Your task to perform on an android device: Show me productivity apps on the Play Store Image 0: 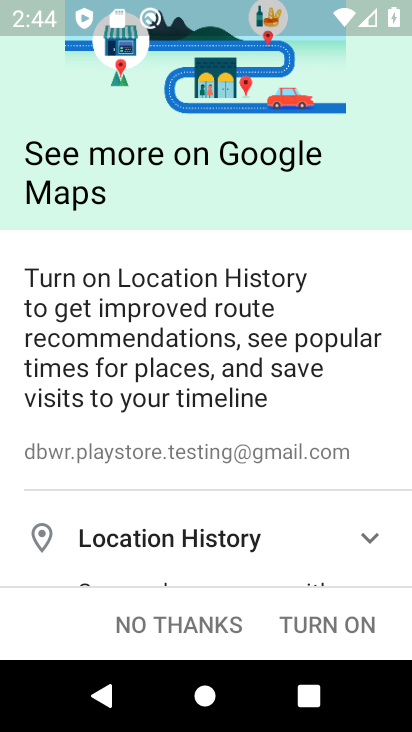
Step 0: press back button
Your task to perform on an android device: Show me productivity apps on the Play Store Image 1: 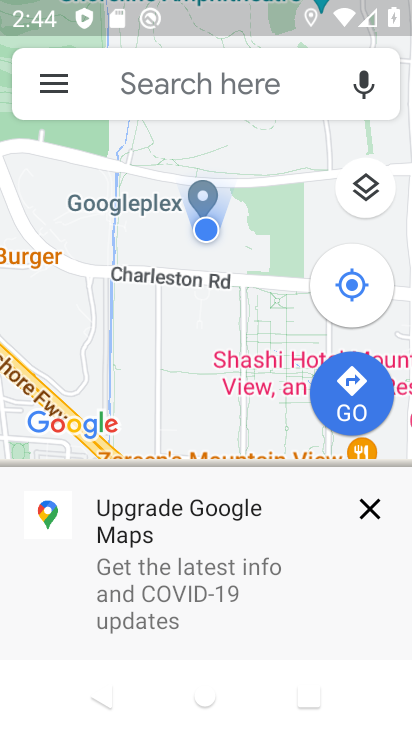
Step 1: press back button
Your task to perform on an android device: Show me productivity apps on the Play Store Image 2: 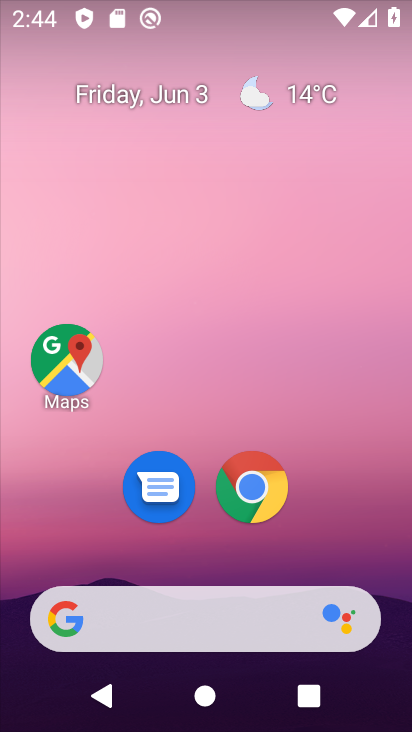
Step 2: drag from (201, 571) to (232, 12)
Your task to perform on an android device: Show me productivity apps on the Play Store Image 3: 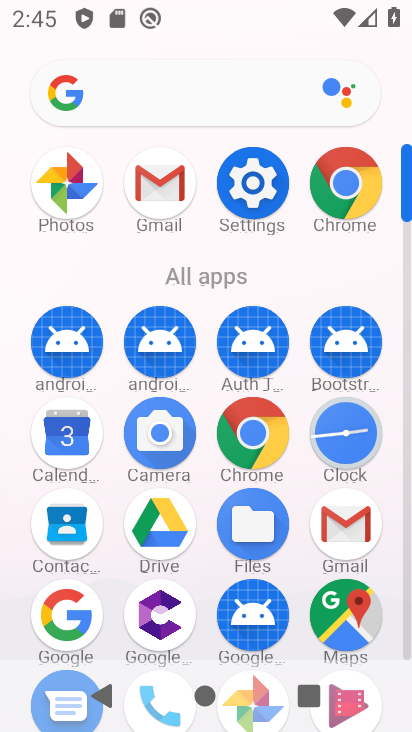
Step 3: click (268, 80)
Your task to perform on an android device: Show me productivity apps on the Play Store Image 4: 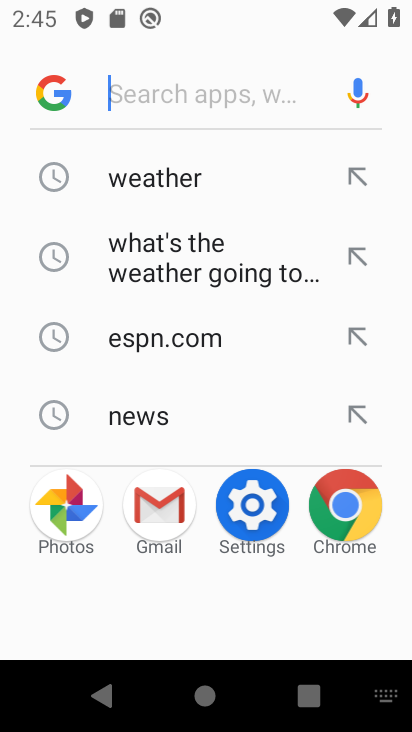
Step 4: press back button
Your task to perform on an android device: Show me productivity apps on the Play Store Image 5: 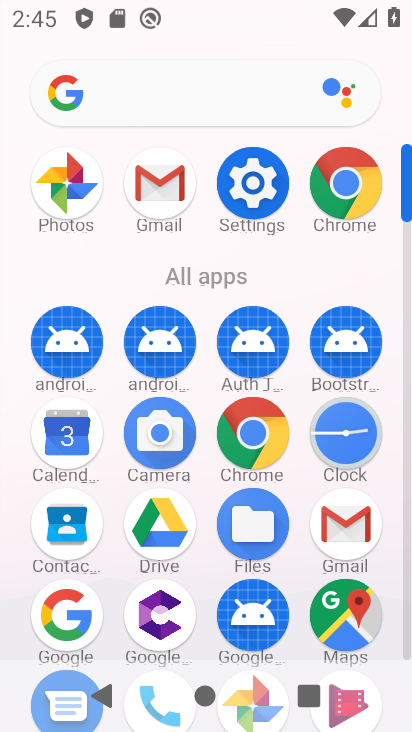
Step 5: drag from (243, 617) to (253, 117)
Your task to perform on an android device: Show me productivity apps on the Play Store Image 6: 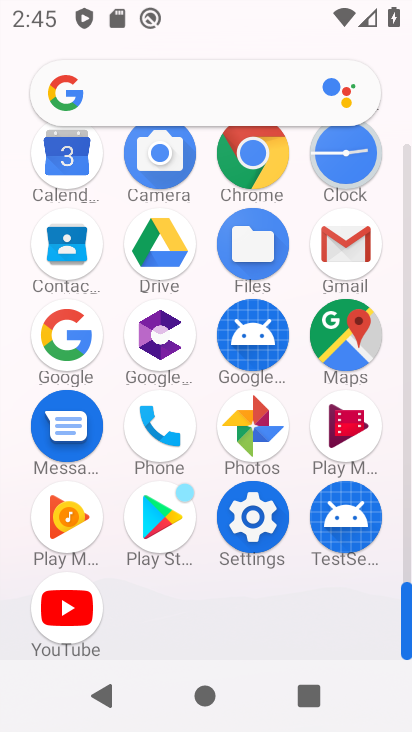
Step 6: click (162, 530)
Your task to perform on an android device: Show me productivity apps on the Play Store Image 7: 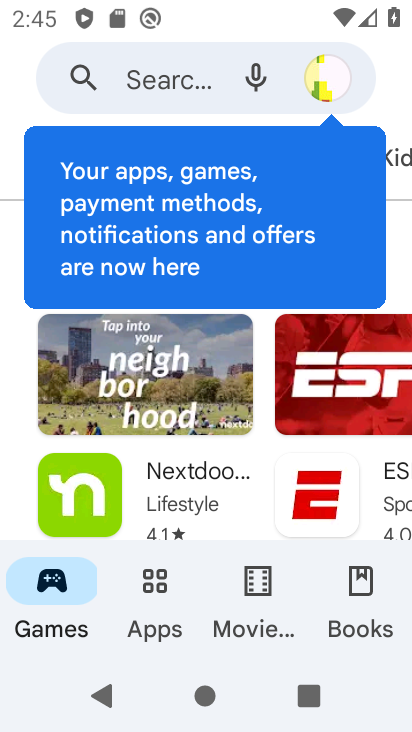
Step 7: click (150, 598)
Your task to perform on an android device: Show me productivity apps on the Play Store Image 8: 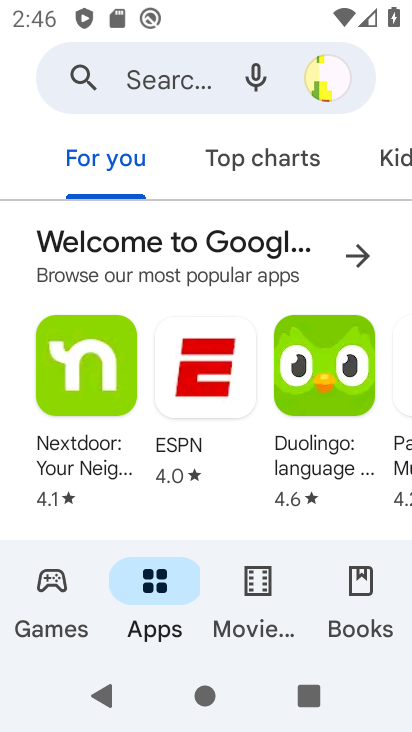
Step 8: task complete